Your task to perform on an android device: Open Google Chrome and open the bookmarks view Image 0: 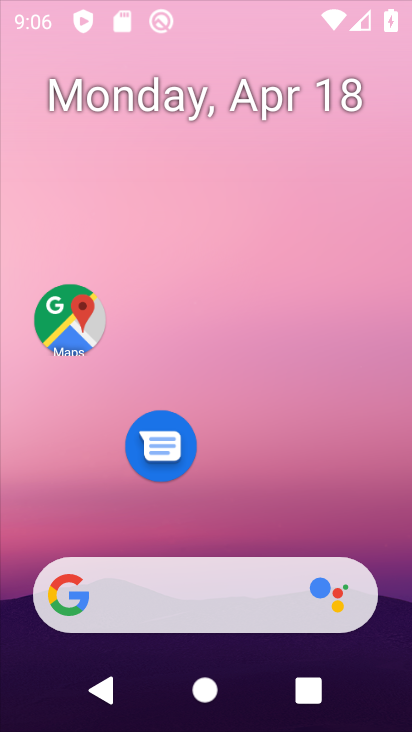
Step 0: press home button
Your task to perform on an android device: Open Google Chrome and open the bookmarks view Image 1: 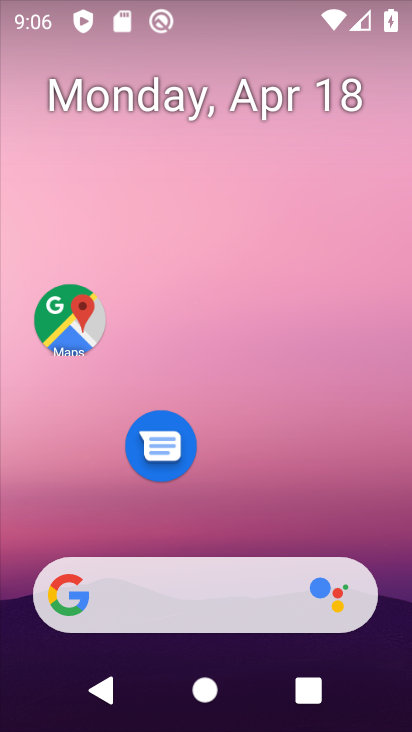
Step 1: drag from (218, 540) to (248, 113)
Your task to perform on an android device: Open Google Chrome and open the bookmarks view Image 2: 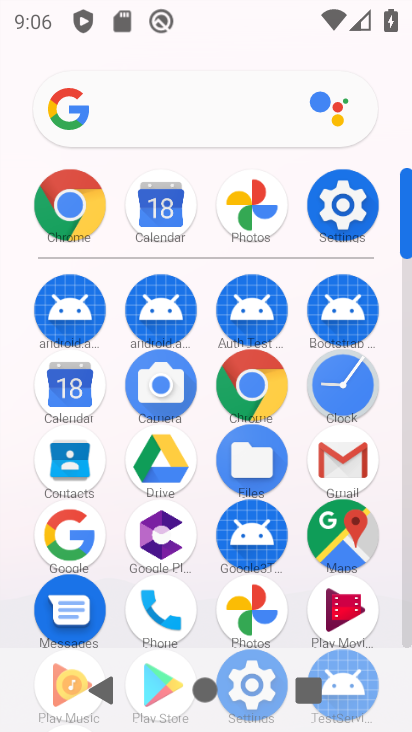
Step 2: click (68, 208)
Your task to perform on an android device: Open Google Chrome and open the bookmarks view Image 3: 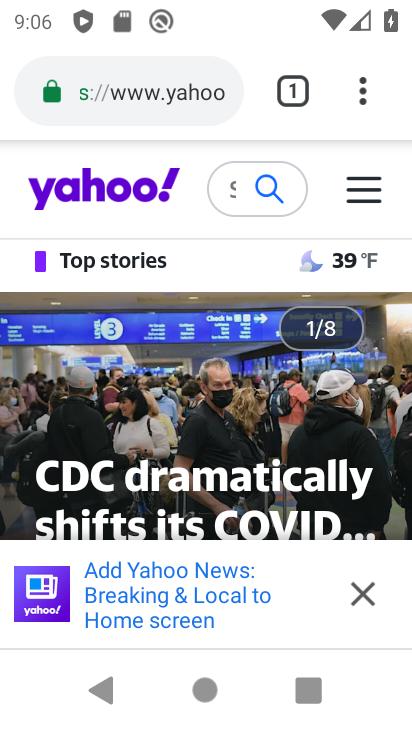
Step 3: click (364, 94)
Your task to perform on an android device: Open Google Chrome and open the bookmarks view Image 4: 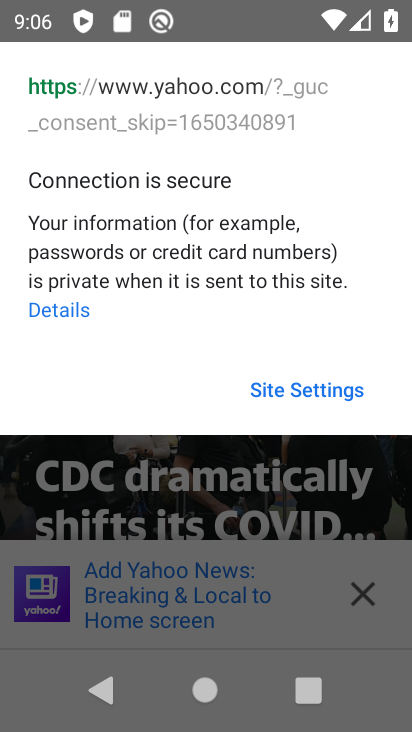
Step 4: click (255, 482)
Your task to perform on an android device: Open Google Chrome and open the bookmarks view Image 5: 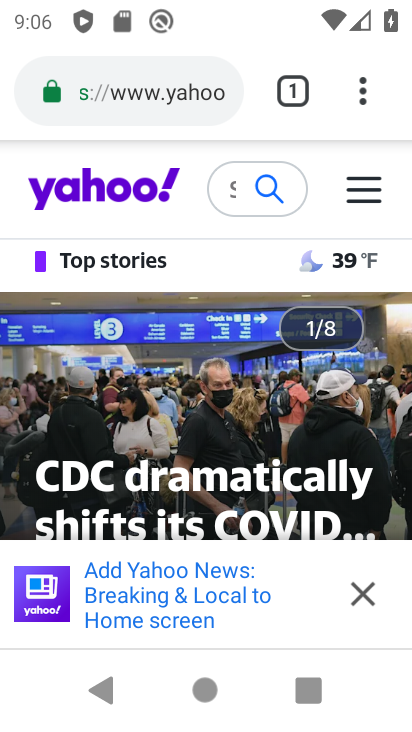
Step 5: click (287, 88)
Your task to perform on an android device: Open Google Chrome and open the bookmarks view Image 6: 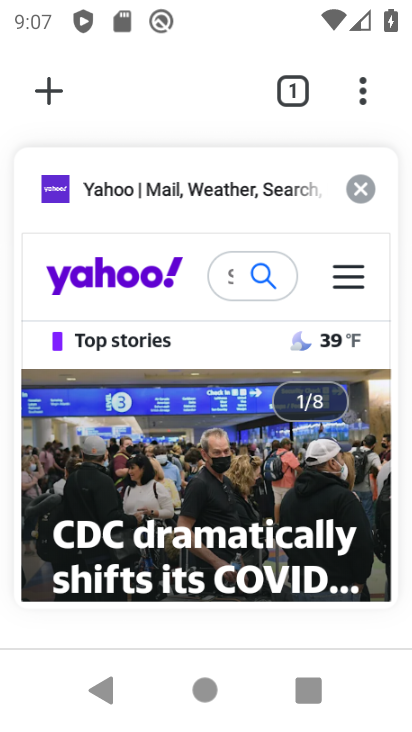
Step 6: click (54, 89)
Your task to perform on an android device: Open Google Chrome and open the bookmarks view Image 7: 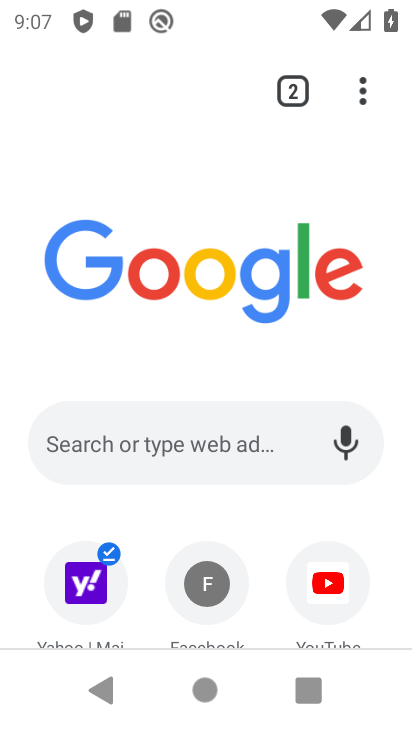
Step 7: click (362, 85)
Your task to perform on an android device: Open Google Chrome and open the bookmarks view Image 8: 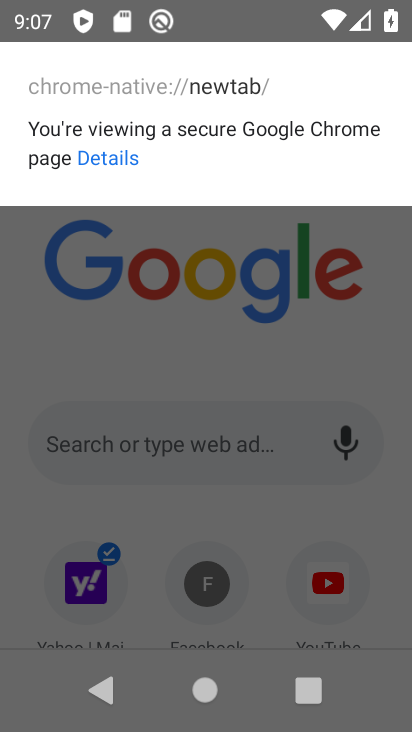
Step 8: click (258, 257)
Your task to perform on an android device: Open Google Chrome and open the bookmarks view Image 9: 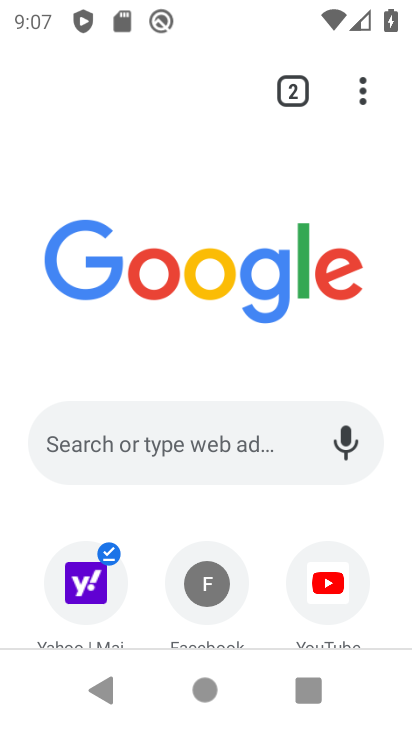
Step 9: click (370, 89)
Your task to perform on an android device: Open Google Chrome and open the bookmarks view Image 10: 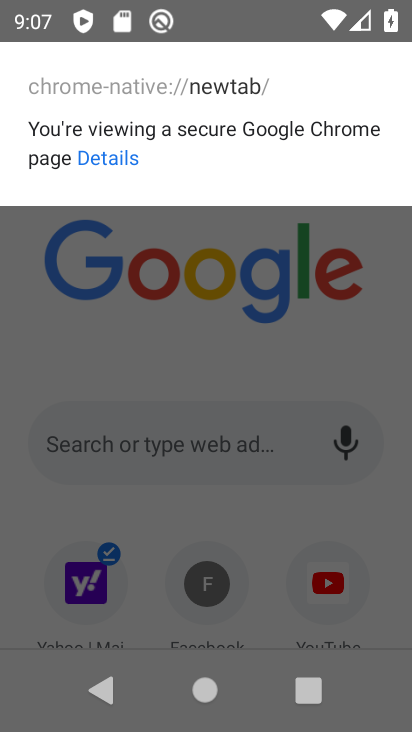
Step 10: click (233, 304)
Your task to perform on an android device: Open Google Chrome and open the bookmarks view Image 11: 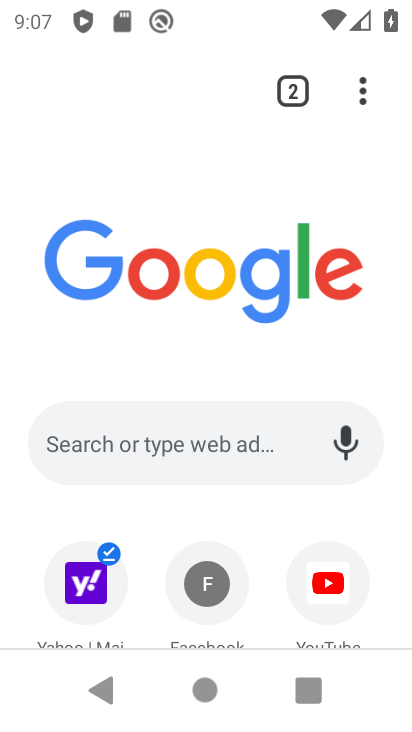
Step 11: click (358, 91)
Your task to perform on an android device: Open Google Chrome and open the bookmarks view Image 12: 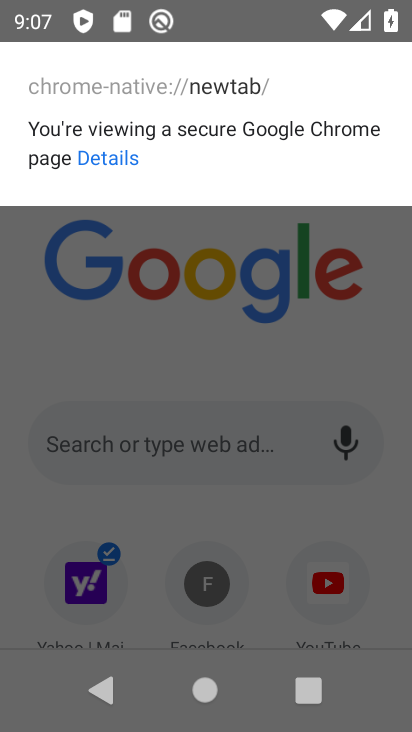
Step 12: click (122, 163)
Your task to perform on an android device: Open Google Chrome and open the bookmarks view Image 13: 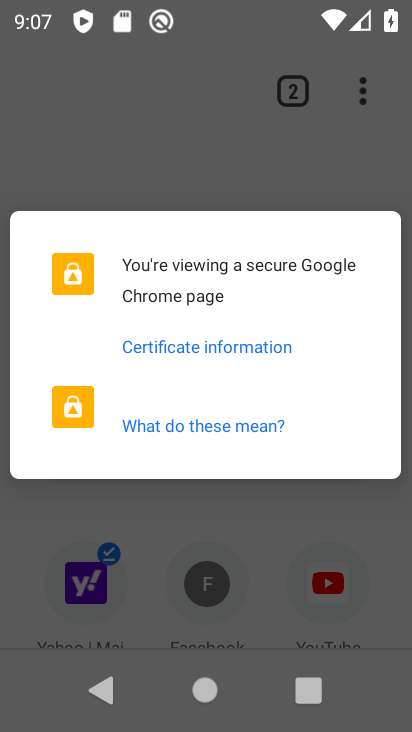
Step 13: click (239, 170)
Your task to perform on an android device: Open Google Chrome and open the bookmarks view Image 14: 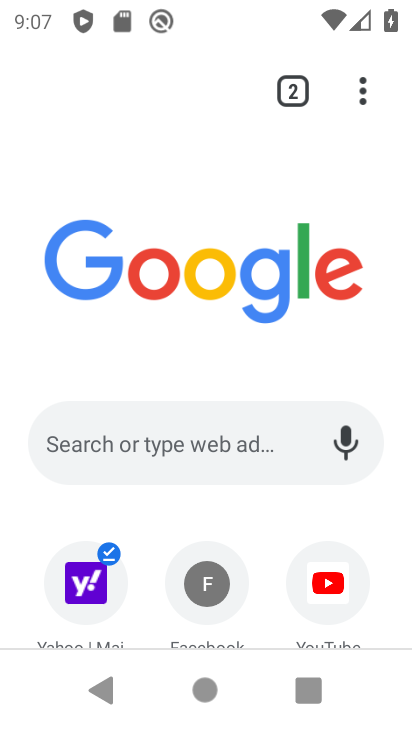
Step 14: click (363, 84)
Your task to perform on an android device: Open Google Chrome and open the bookmarks view Image 15: 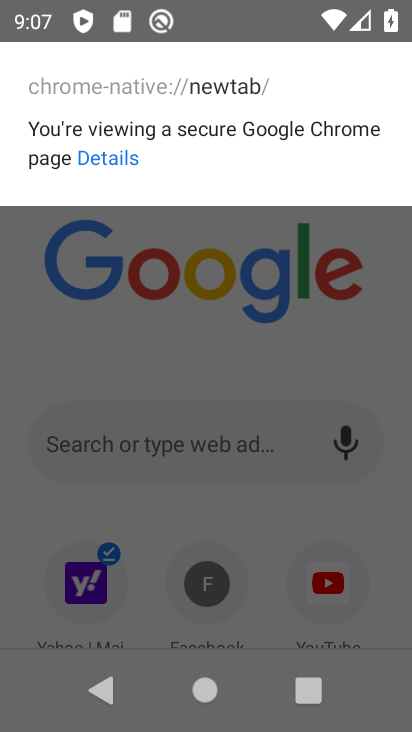
Step 15: click (119, 345)
Your task to perform on an android device: Open Google Chrome and open the bookmarks view Image 16: 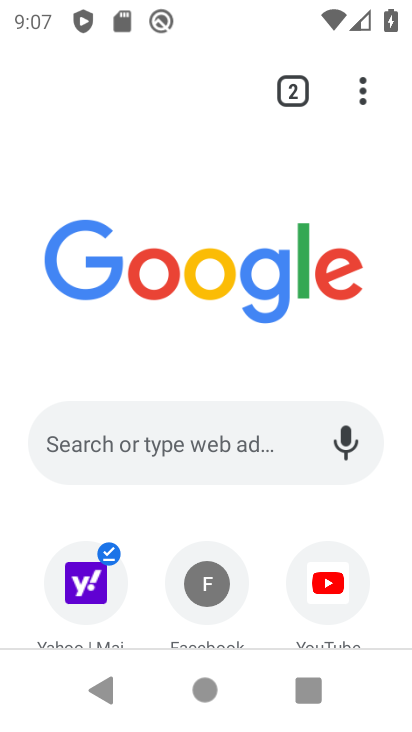
Step 16: click (283, 88)
Your task to perform on an android device: Open Google Chrome and open the bookmarks view Image 17: 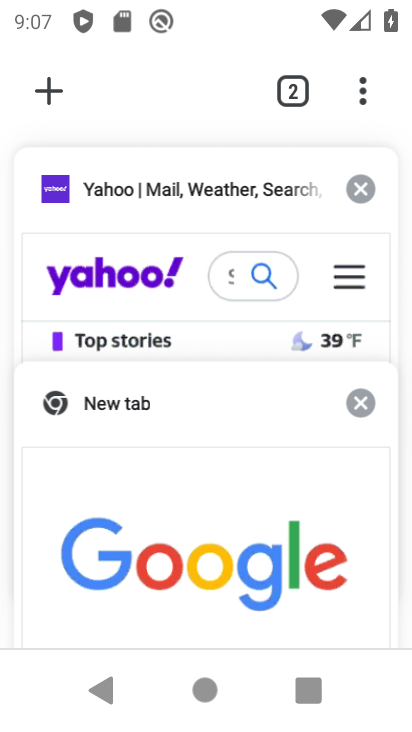
Step 17: click (358, 185)
Your task to perform on an android device: Open Google Chrome and open the bookmarks view Image 18: 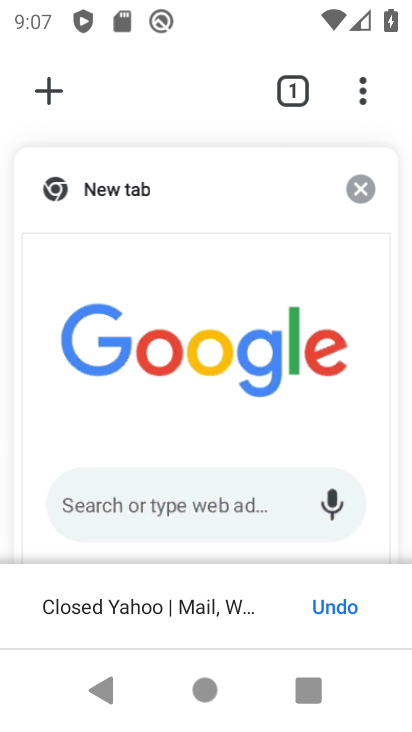
Step 18: click (171, 284)
Your task to perform on an android device: Open Google Chrome and open the bookmarks view Image 19: 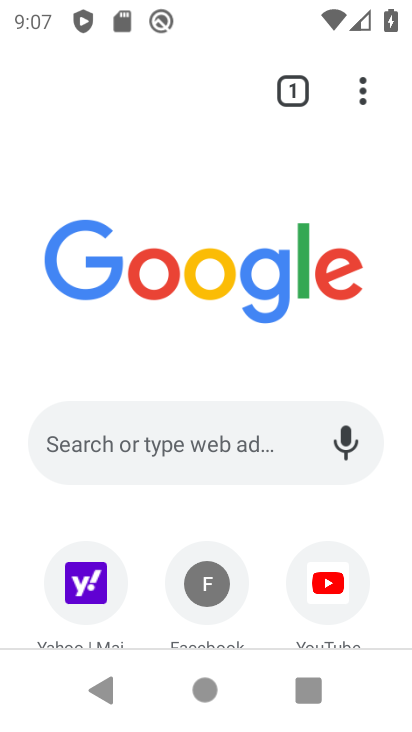
Step 19: click (355, 88)
Your task to perform on an android device: Open Google Chrome and open the bookmarks view Image 20: 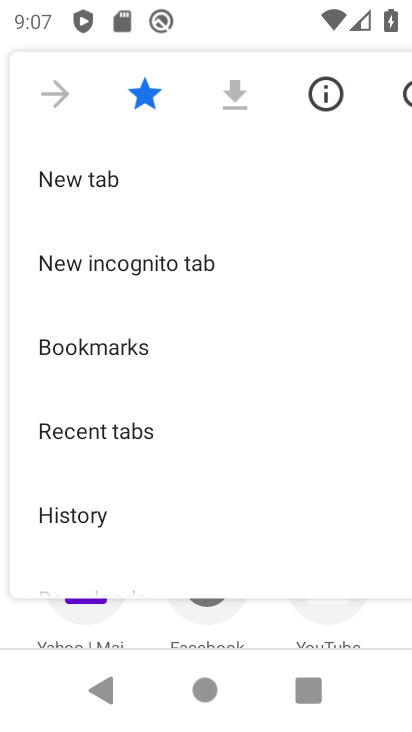
Step 20: click (164, 340)
Your task to perform on an android device: Open Google Chrome and open the bookmarks view Image 21: 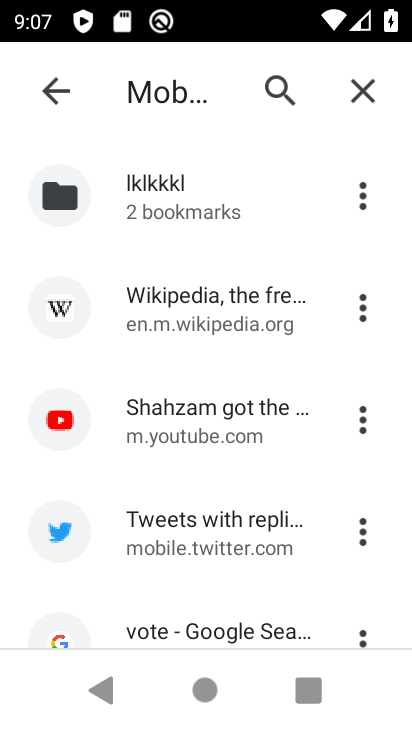
Step 21: drag from (197, 538) to (237, 219)
Your task to perform on an android device: Open Google Chrome and open the bookmarks view Image 22: 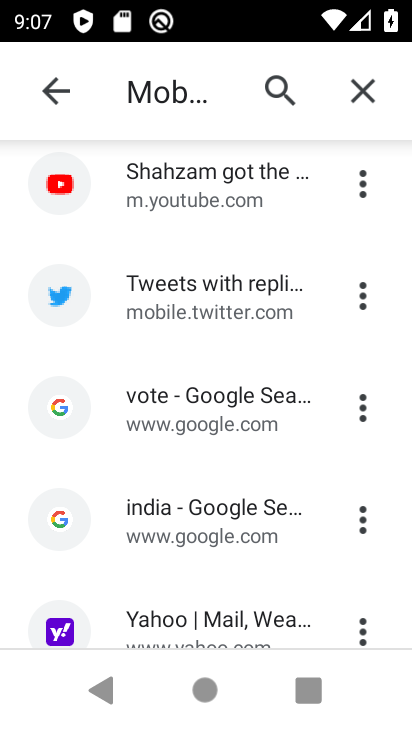
Step 22: click (197, 404)
Your task to perform on an android device: Open Google Chrome and open the bookmarks view Image 23: 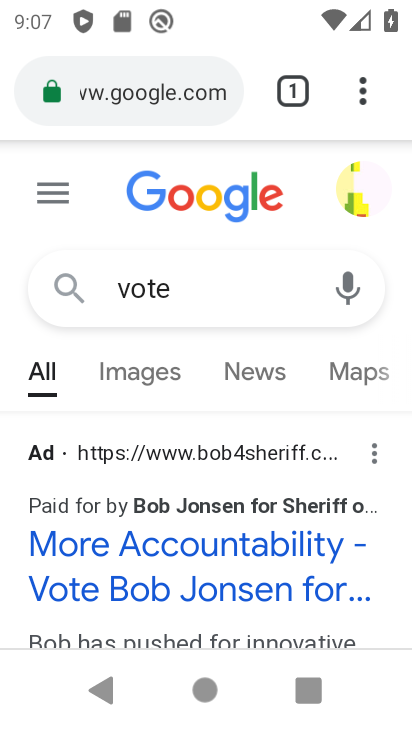
Step 23: task complete